Your task to perform on an android device: Go to notification settings Image 0: 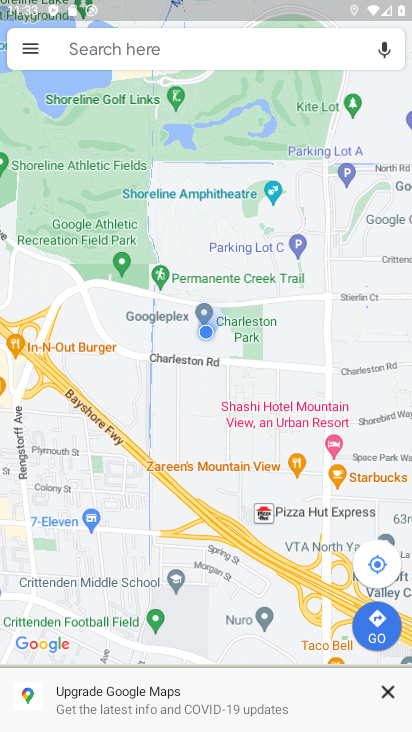
Step 0: press home button
Your task to perform on an android device: Go to notification settings Image 1: 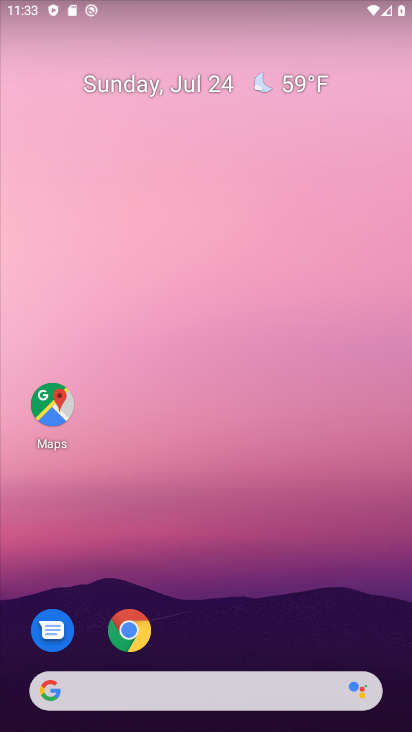
Step 1: drag from (219, 669) to (245, 260)
Your task to perform on an android device: Go to notification settings Image 2: 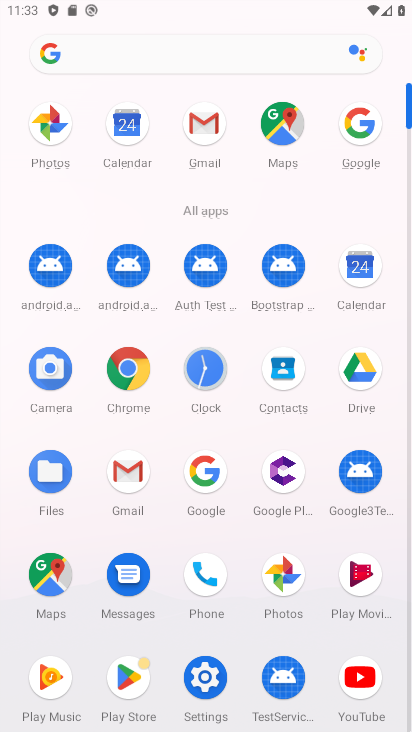
Step 2: click (199, 672)
Your task to perform on an android device: Go to notification settings Image 3: 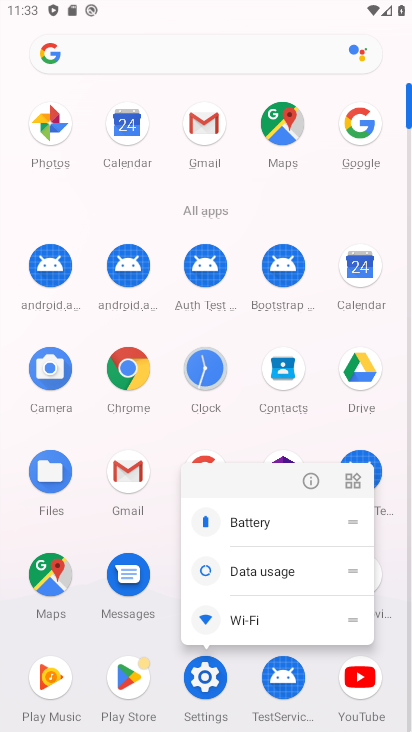
Step 3: click (202, 678)
Your task to perform on an android device: Go to notification settings Image 4: 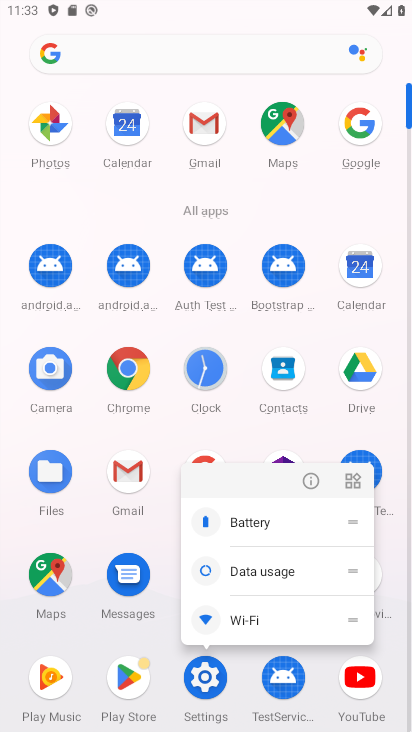
Step 4: click (202, 678)
Your task to perform on an android device: Go to notification settings Image 5: 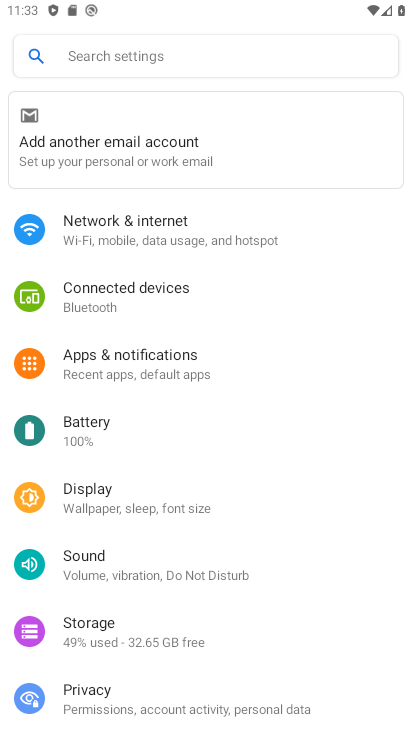
Step 5: click (184, 363)
Your task to perform on an android device: Go to notification settings Image 6: 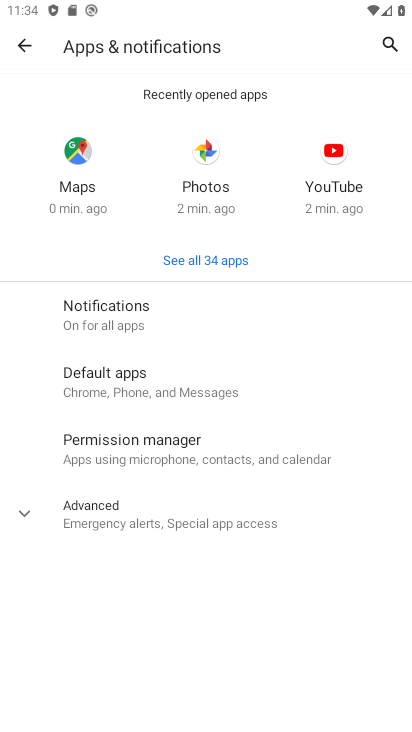
Step 6: click (114, 520)
Your task to perform on an android device: Go to notification settings Image 7: 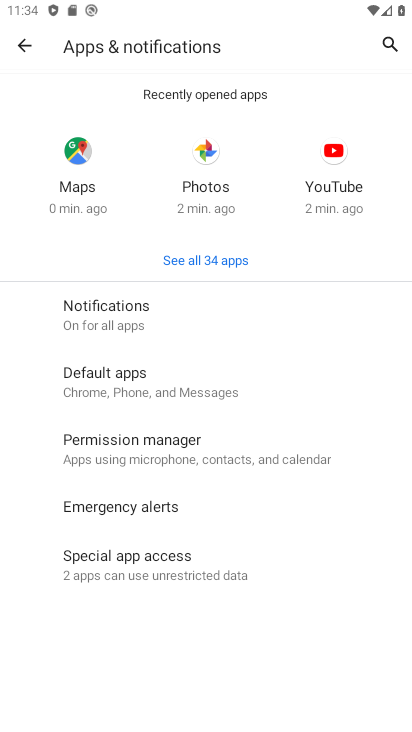
Step 7: click (117, 325)
Your task to perform on an android device: Go to notification settings Image 8: 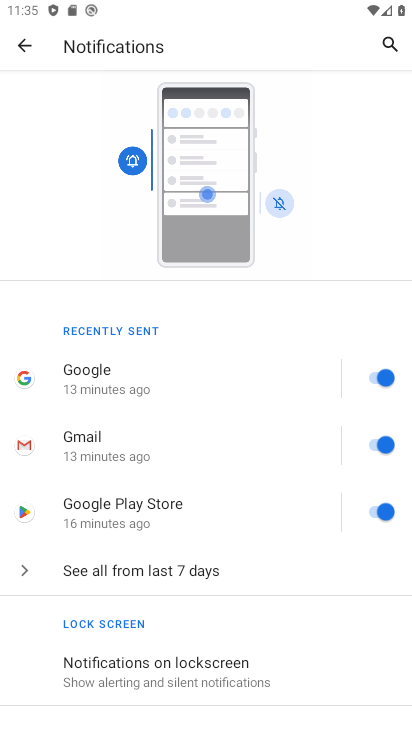
Step 8: drag from (191, 658) to (246, 273)
Your task to perform on an android device: Go to notification settings Image 9: 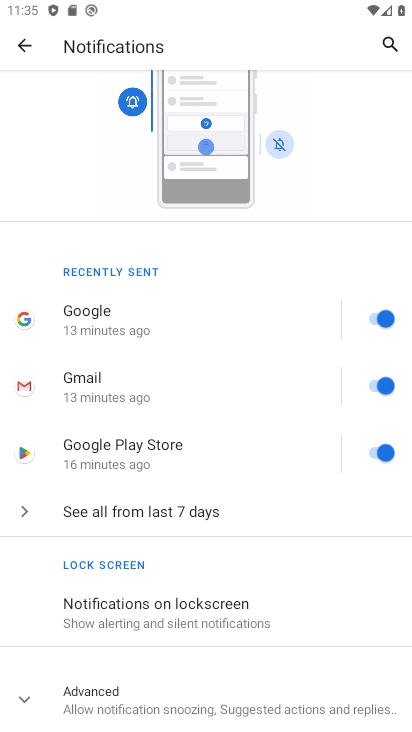
Step 9: click (102, 698)
Your task to perform on an android device: Go to notification settings Image 10: 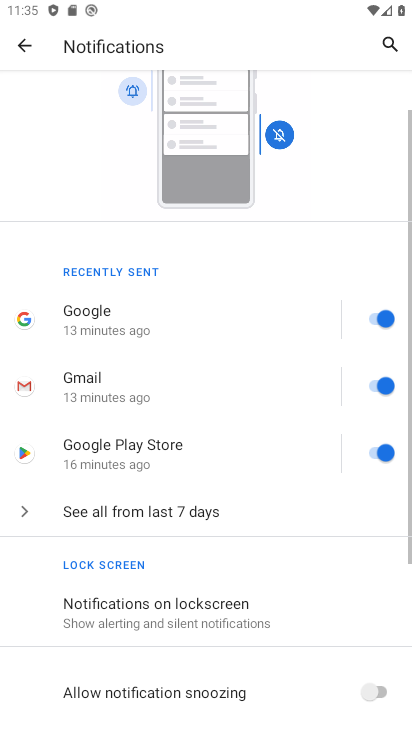
Step 10: task complete